Your task to perform on an android device: Go to wifi settings Image 0: 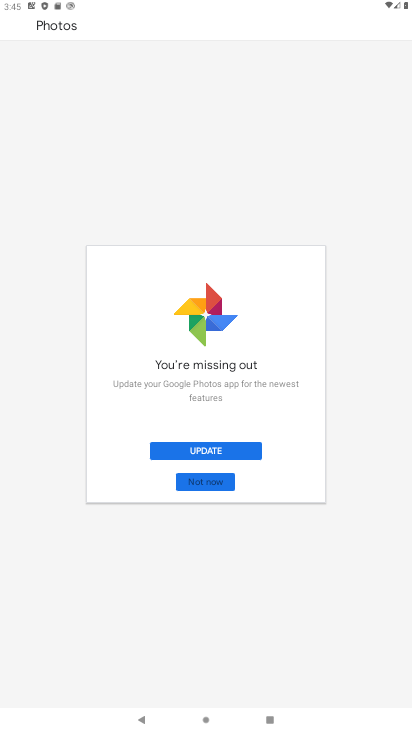
Step 0: press home button
Your task to perform on an android device: Go to wifi settings Image 1: 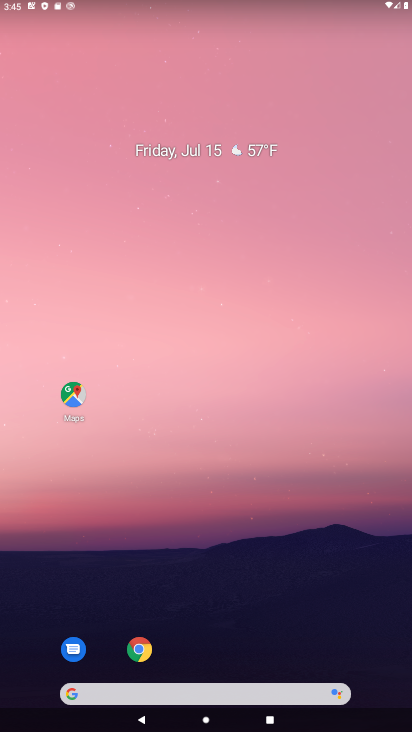
Step 1: drag from (232, 727) to (220, 89)
Your task to perform on an android device: Go to wifi settings Image 2: 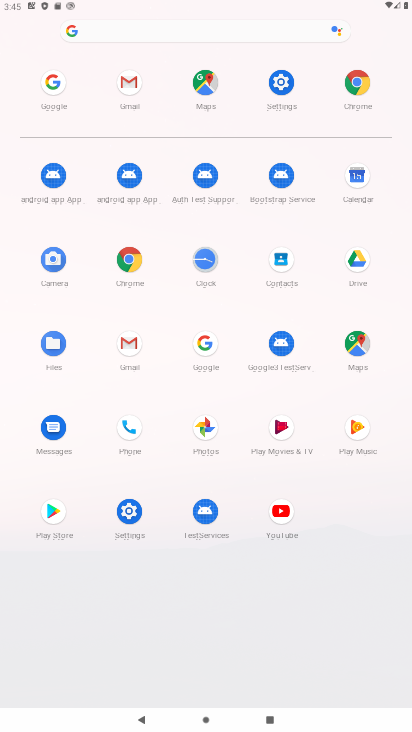
Step 2: click (283, 84)
Your task to perform on an android device: Go to wifi settings Image 3: 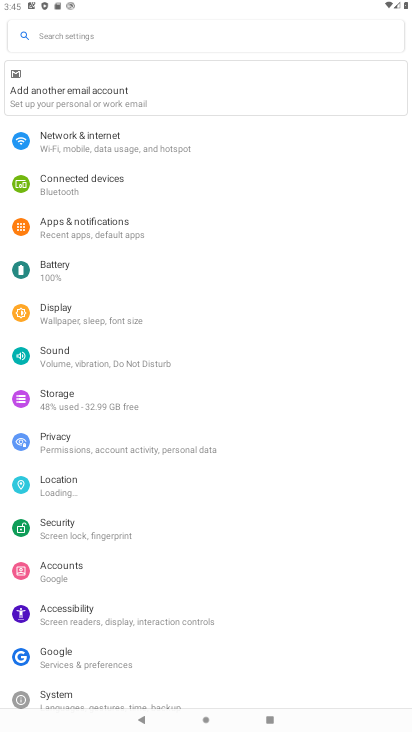
Step 3: click (62, 148)
Your task to perform on an android device: Go to wifi settings Image 4: 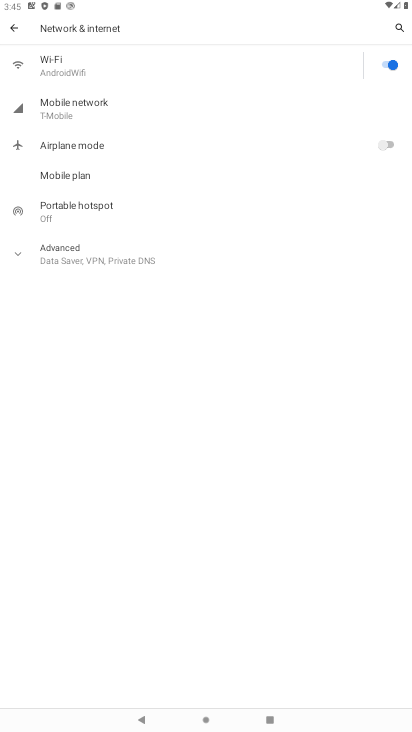
Step 4: click (70, 70)
Your task to perform on an android device: Go to wifi settings Image 5: 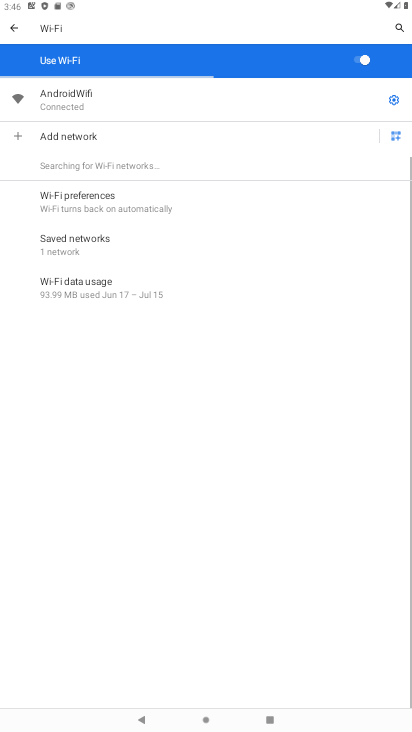
Step 5: task complete